Your task to perform on an android device: Open the stopwatch Image 0: 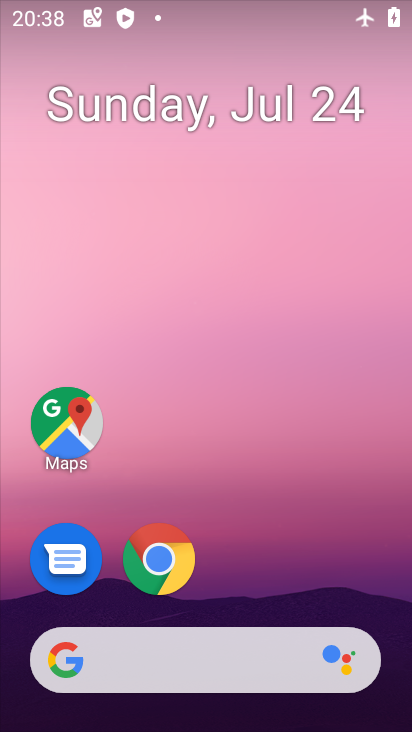
Step 0: press home button
Your task to perform on an android device: Open the stopwatch Image 1: 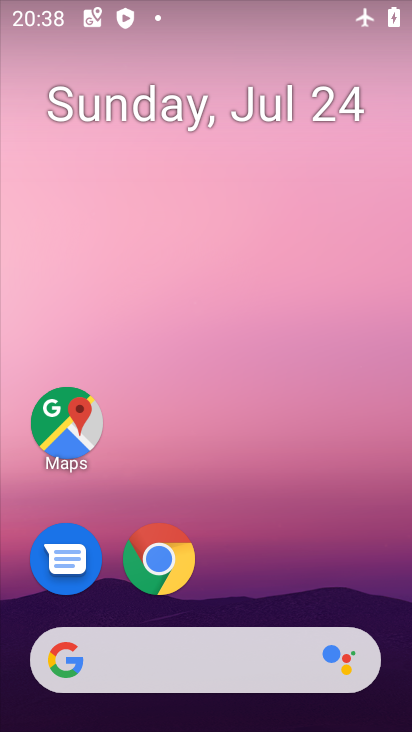
Step 1: drag from (347, 507) to (361, 67)
Your task to perform on an android device: Open the stopwatch Image 2: 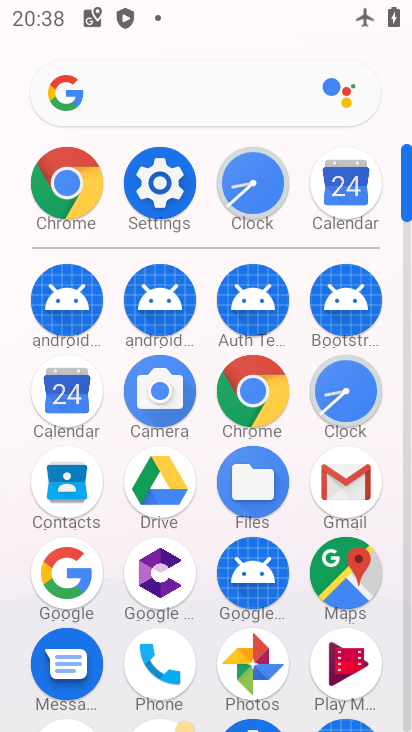
Step 2: click (347, 393)
Your task to perform on an android device: Open the stopwatch Image 3: 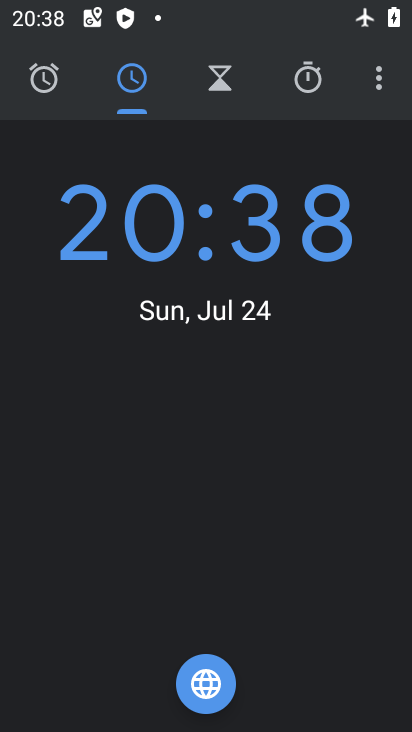
Step 3: click (306, 84)
Your task to perform on an android device: Open the stopwatch Image 4: 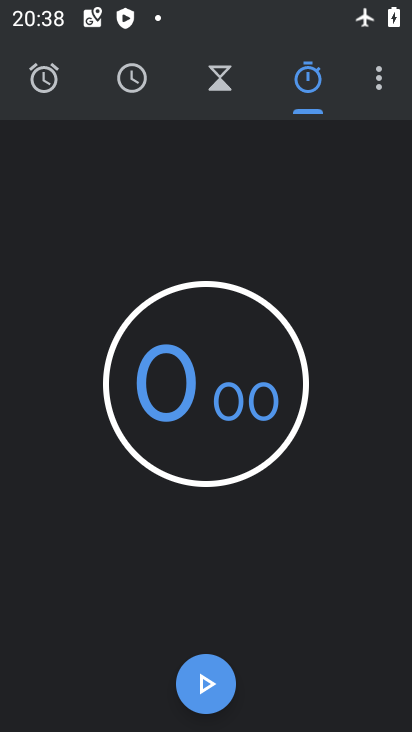
Step 4: task complete